Your task to perform on an android device: Go to sound settings Image 0: 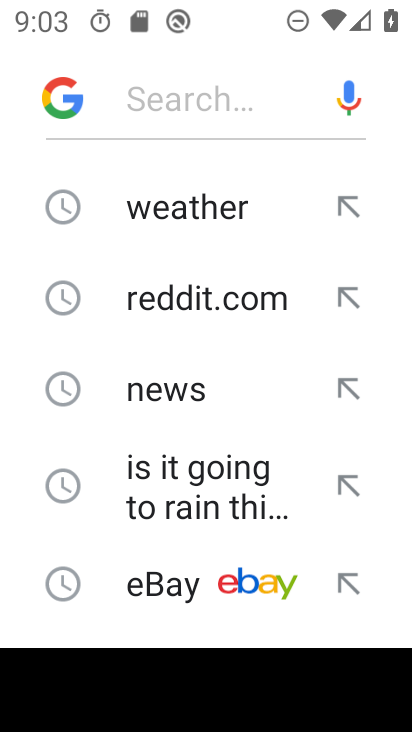
Step 0: press home button
Your task to perform on an android device: Go to sound settings Image 1: 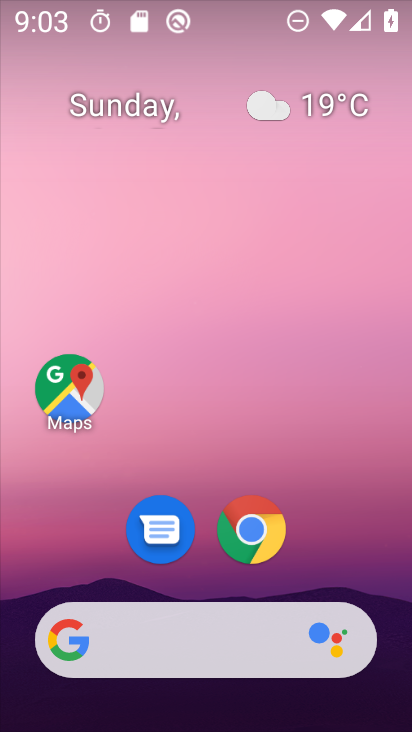
Step 1: drag from (204, 578) to (240, 3)
Your task to perform on an android device: Go to sound settings Image 2: 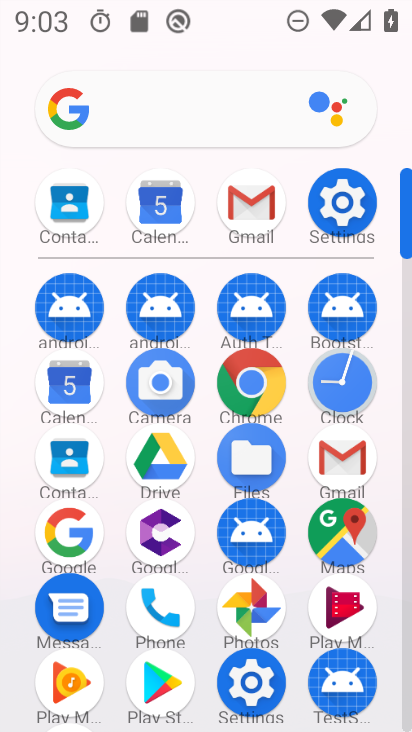
Step 2: click (340, 199)
Your task to perform on an android device: Go to sound settings Image 3: 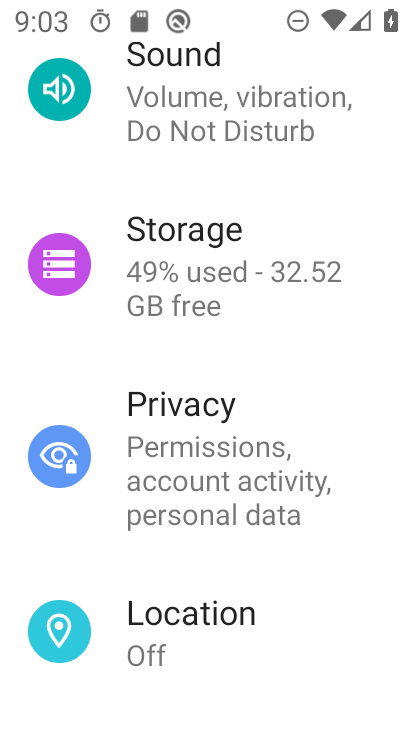
Step 3: click (189, 109)
Your task to perform on an android device: Go to sound settings Image 4: 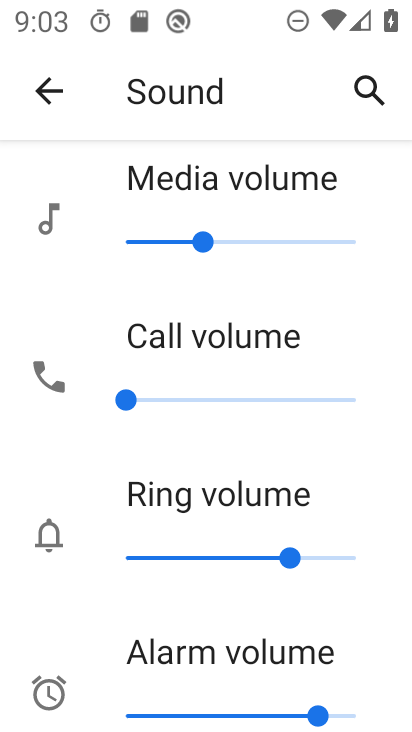
Step 4: drag from (230, 623) to (264, 52)
Your task to perform on an android device: Go to sound settings Image 5: 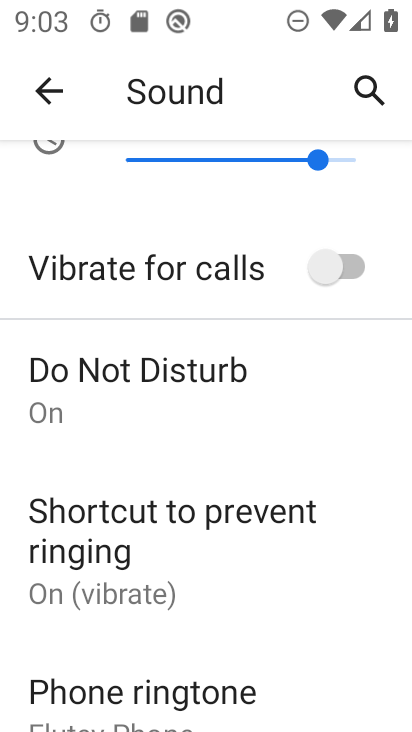
Step 5: drag from (194, 645) to (206, 251)
Your task to perform on an android device: Go to sound settings Image 6: 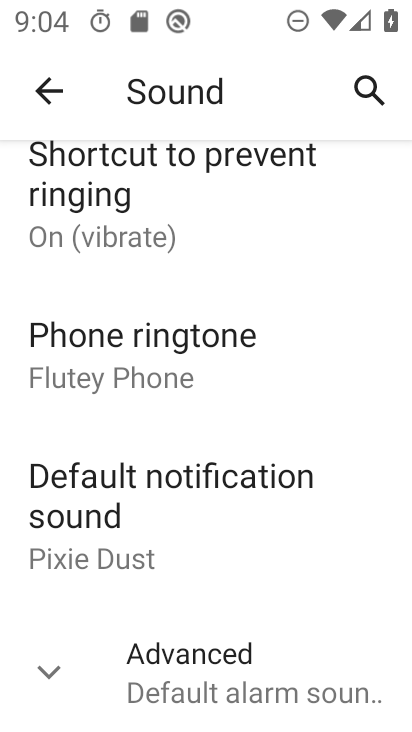
Step 6: click (47, 658)
Your task to perform on an android device: Go to sound settings Image 7: 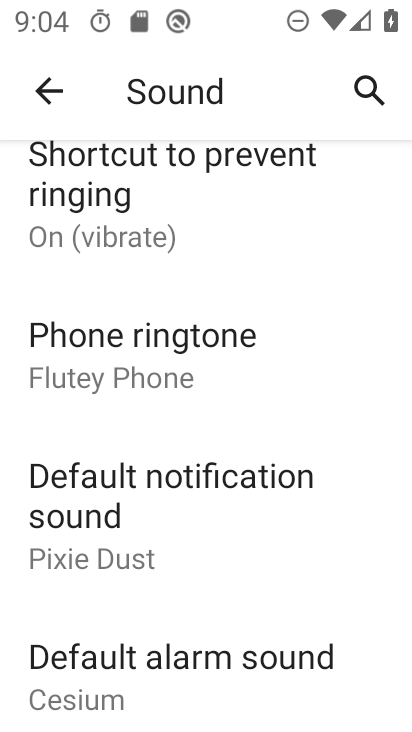
Step 7: task complete